Your task to perform on an android device: Open calendar and show me the third week of next month Image 0: 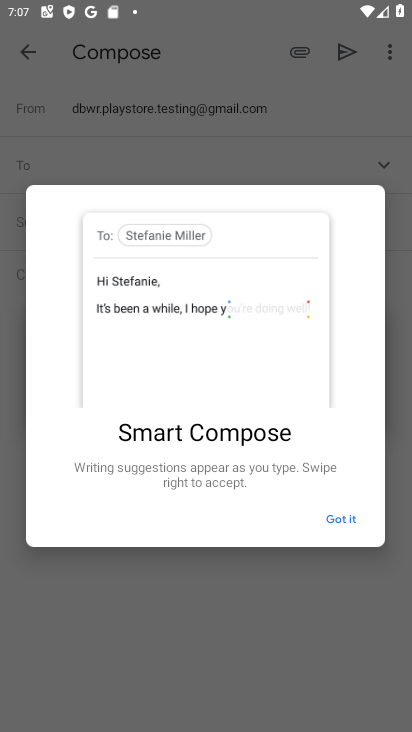
Step 0: press home button
Your task to perform on an android device: Open calendar and show me the third week of next month Image 1: 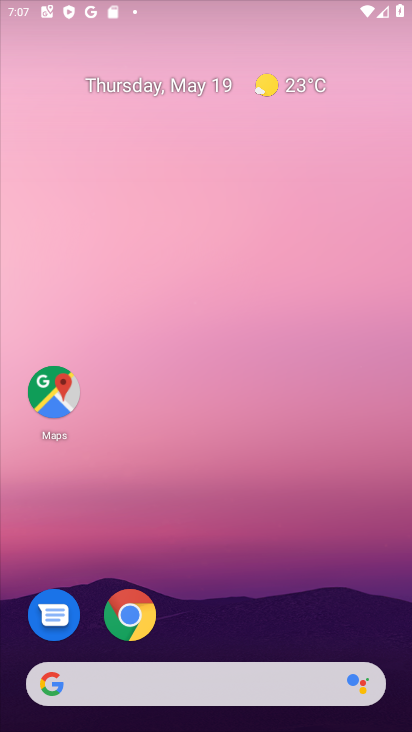
Step 1: drag from (343, 615) to (342, 26)
Your task to perform on an android device: Open calendar and show me the third week of next month Image 2: 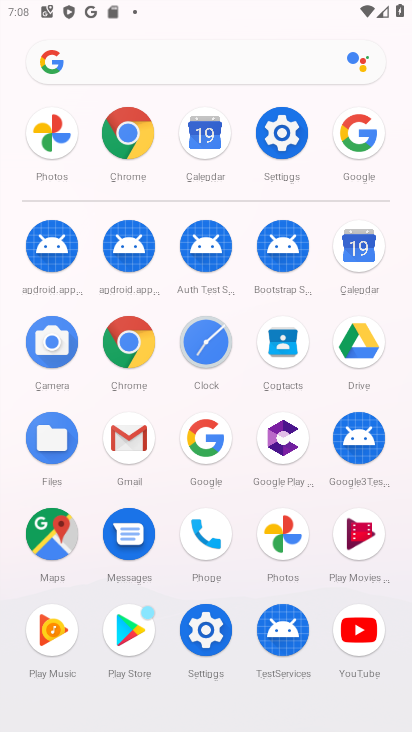
Step 2: click (353, 255)
Your task to perform on an android device: Open calendar and show me the third week of next month Image 3: 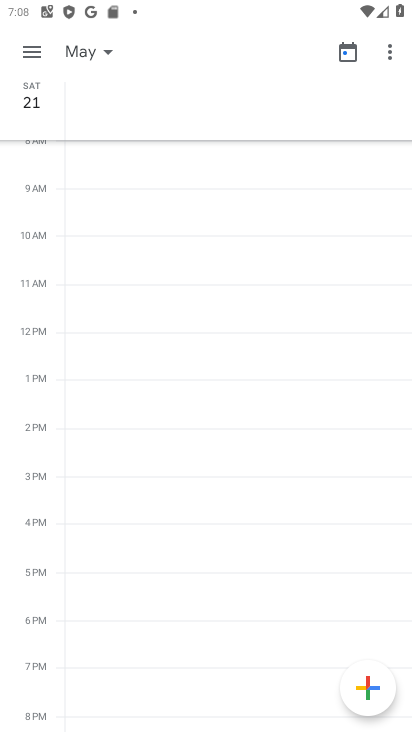
Step 3: click (79, 49)
Your task to perform on an android device: Open calendar and show me the third week of next month Image 4: 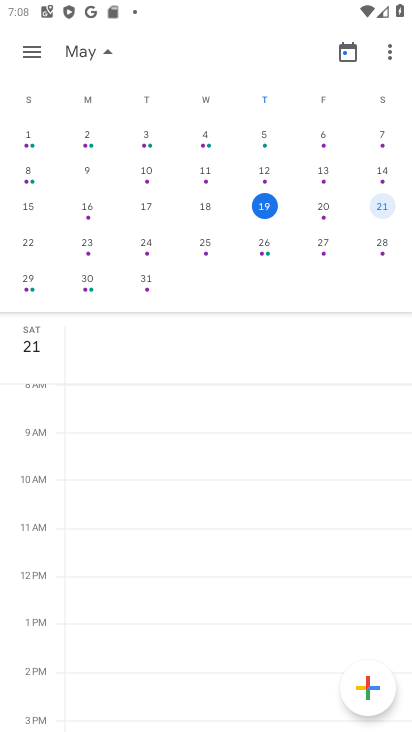
Step 4: drag from (316, 207) to (1, 159)
Your task to perform on an android device: Open calendar and show me the third week of next month Image 5: 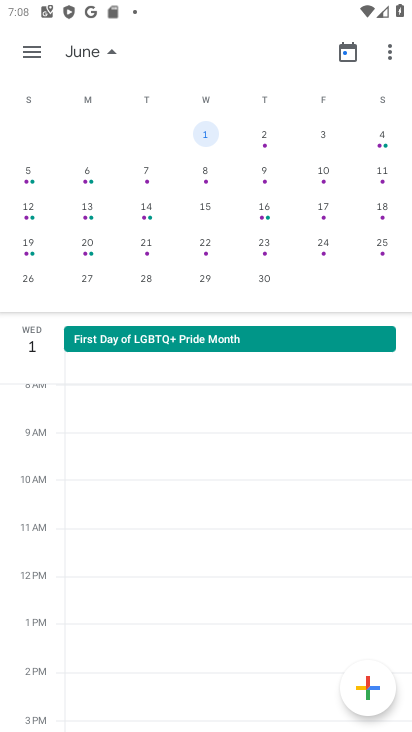
Step 5: drag from (293, 193) to (115, 191)
Your task to perform on an android device: Open calendar and show me the third week of next month Image 6: 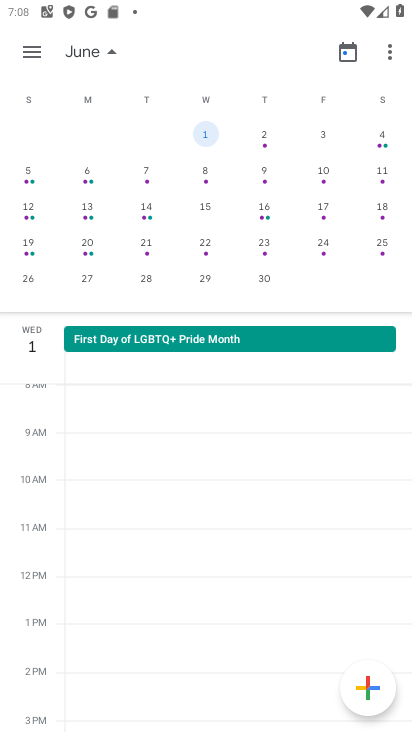
Step 6: click (82, 252)
Your task to perform on an android device: Open calendar and show me the third week of next month Image 7: 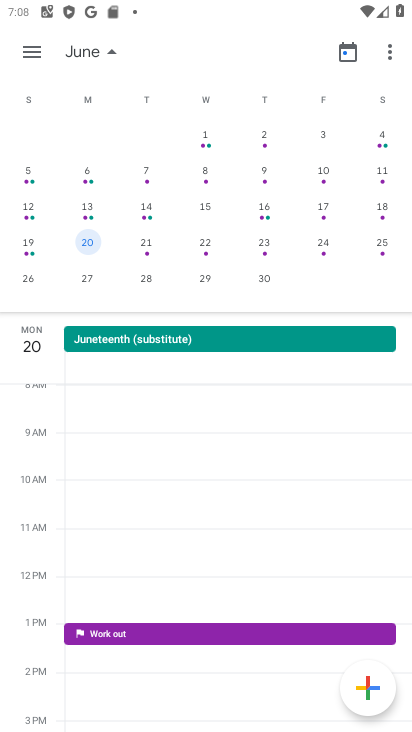
Step 7: task complete